Your task to perform on an android device: stop showing notifications on the lock screen Image 0: 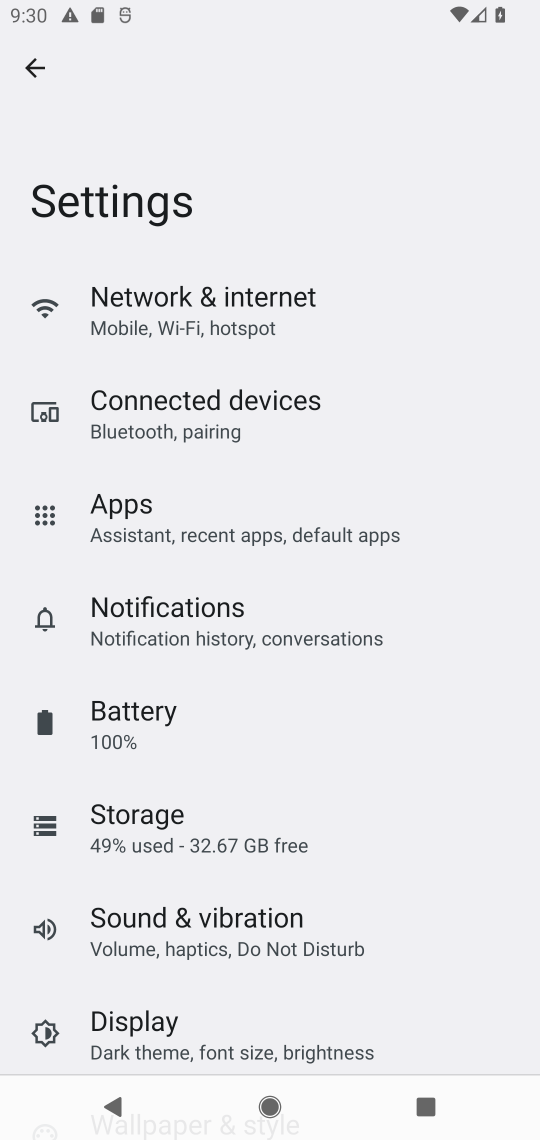
Step 0: press home button
Your task to perform on an android device: stop showing notifications on the lock screen Image 1: 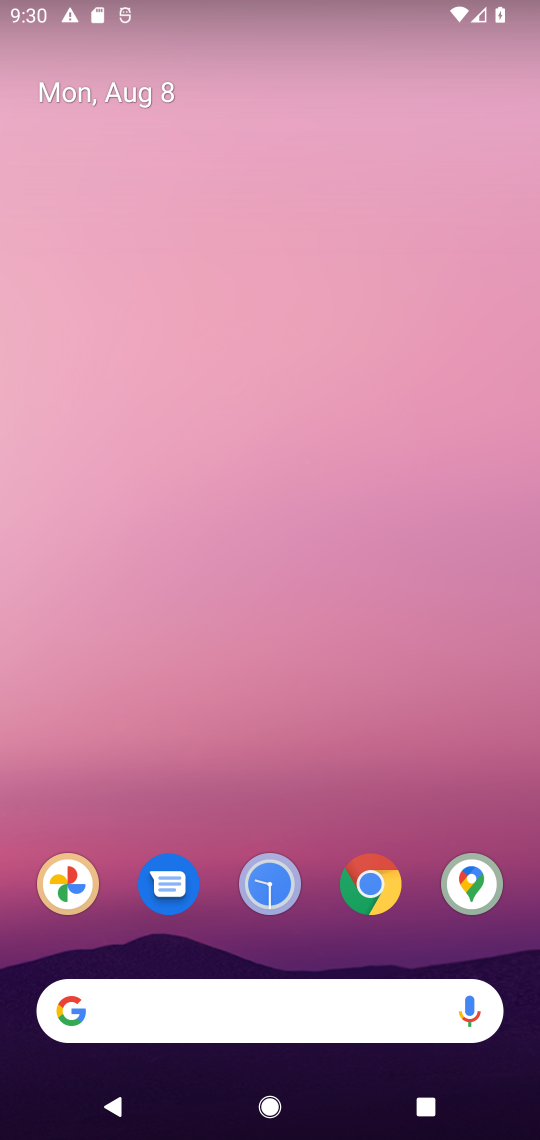
Step 1: drag from (291, 802) to (133, 72)
Your task to perform on an android device: stop showing notifications on the lock screen Image 2: 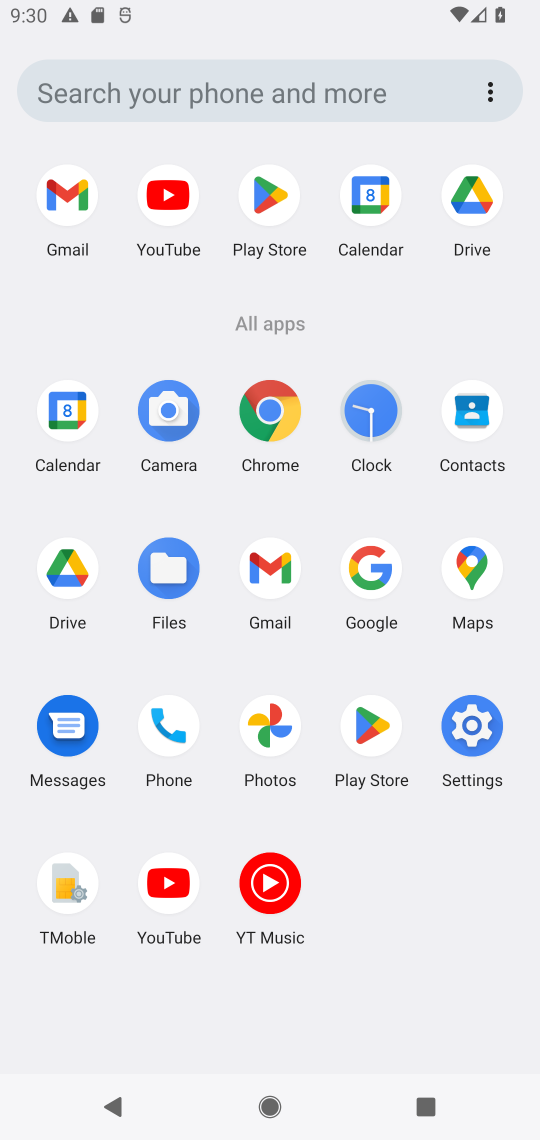
Step 2: click (470, 725)
Your task to perform on an android device: stop showing notifications on the lock screen Image 3: 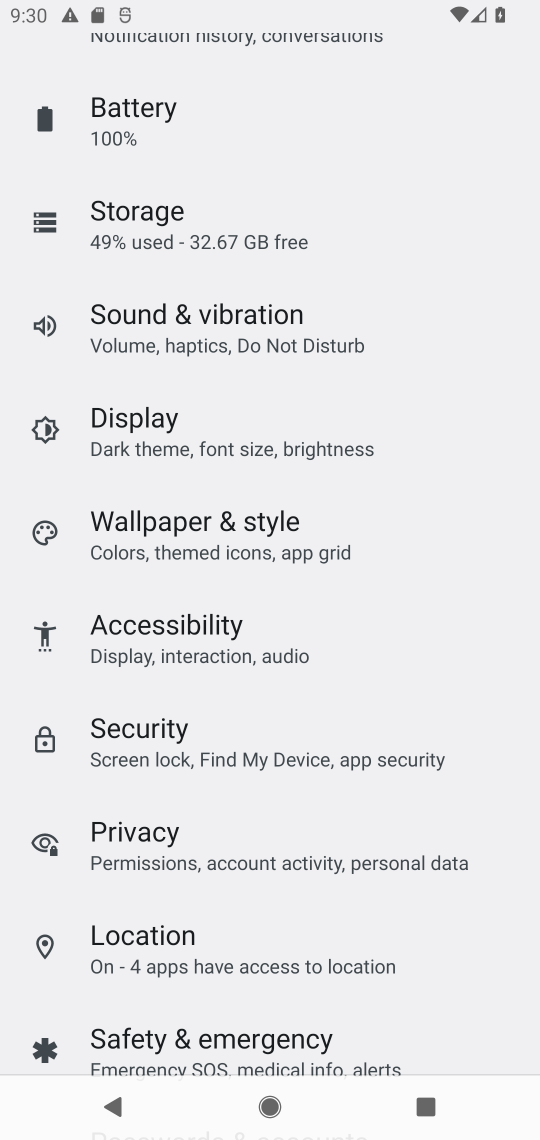
Step 3: drag from (397, 230) to (332, 778)
Your task to perform on an android device: stop showing notifications on the lock screen Image 4: 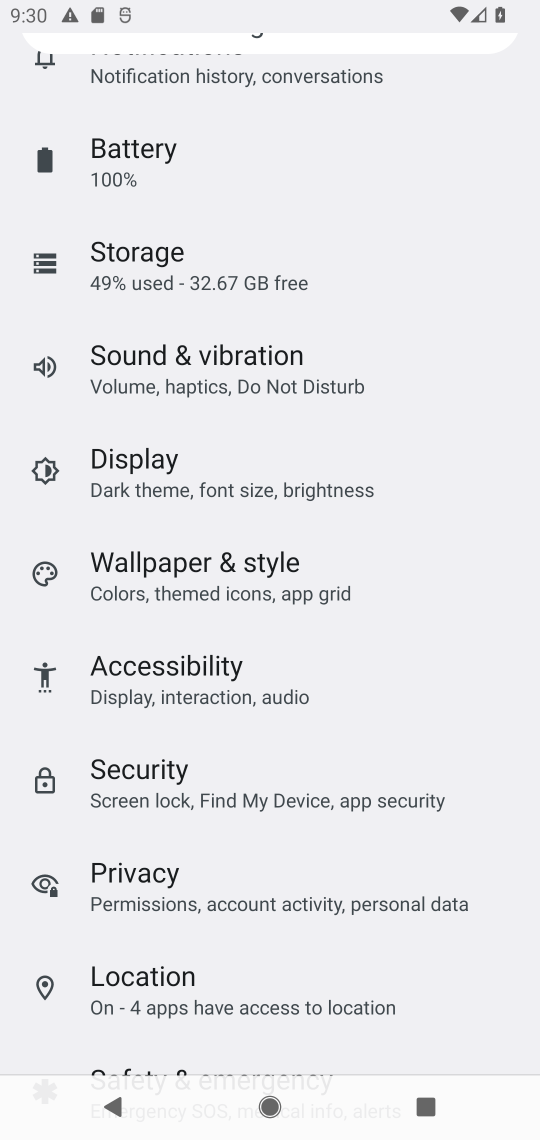
Step 4: drag from (382, 208) to (361, 928)
Your task to perform on an android device: stop showing notifications on the lock screen Image 5: 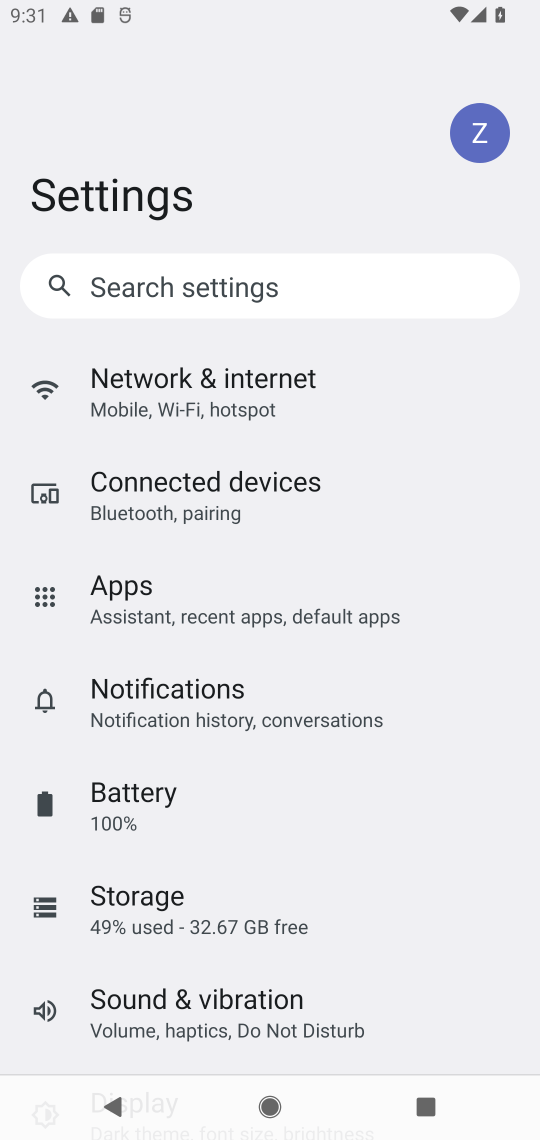
Step 5: click (160, 682)
Your task to perform on an android device: stop showing notifications on the lock screen Image 6: 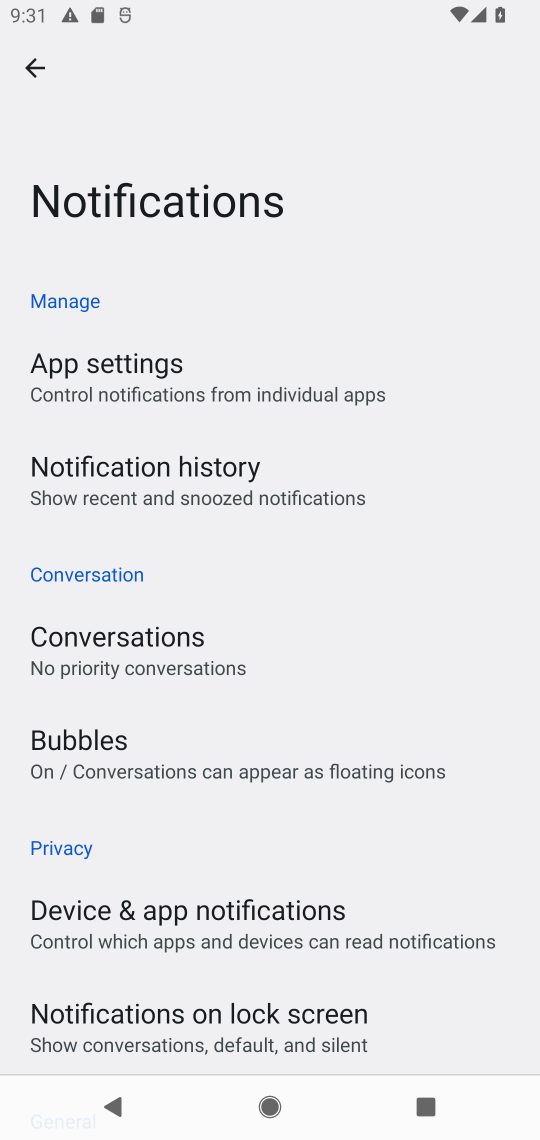
Step 6: click (251, 1013)
Your task to perform on an android device: stop showing notifications on the lock screen Image 7: 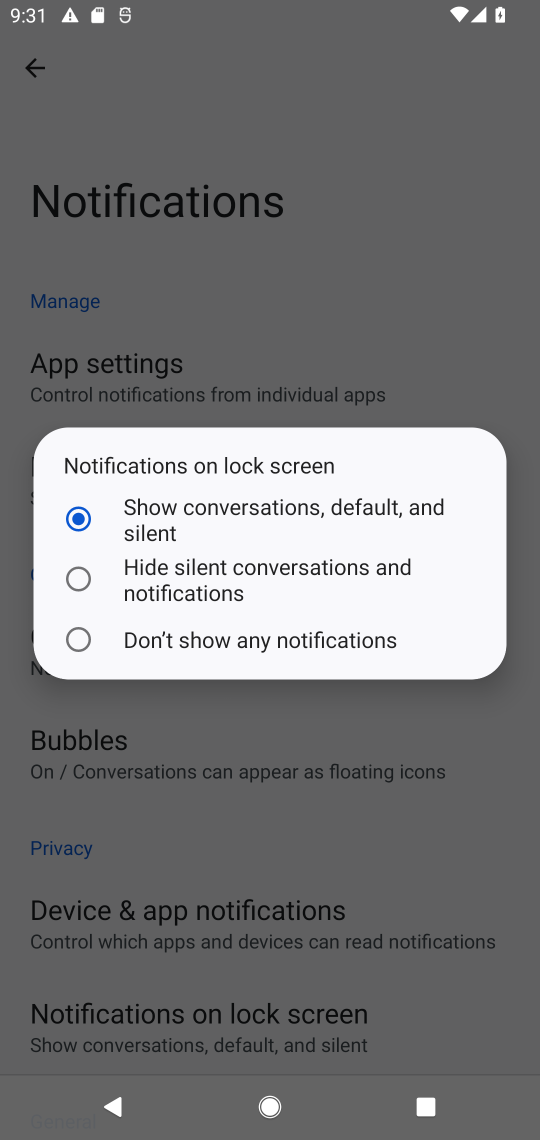
Step 7: click (66, 640)
Your task to perform on an android device: stop showing notifications on the lock screen Image 8: 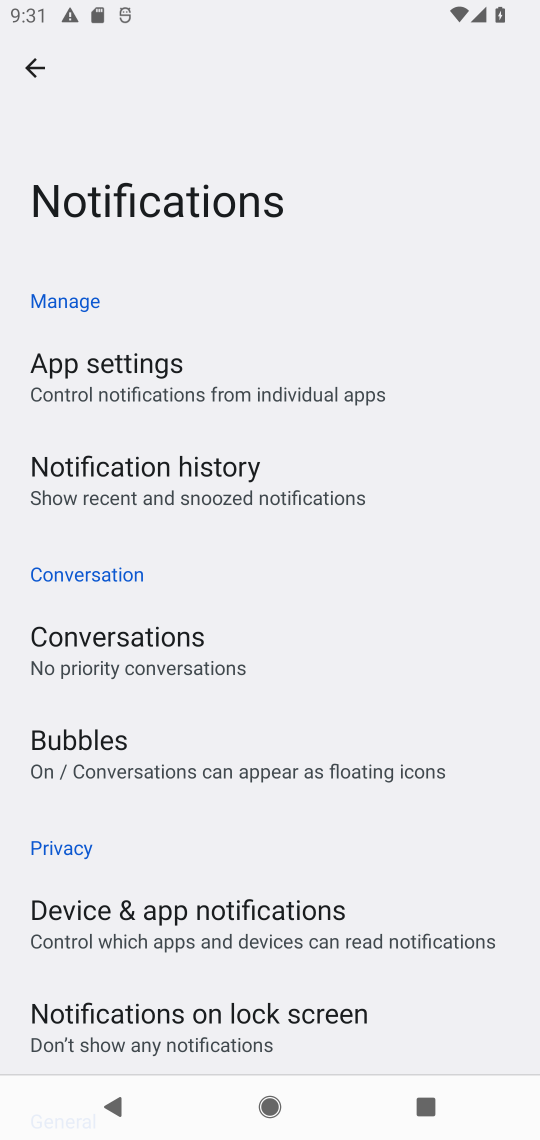
Step 8: task complete